Your task to perform on an android device: change text size in settings app Image 0: 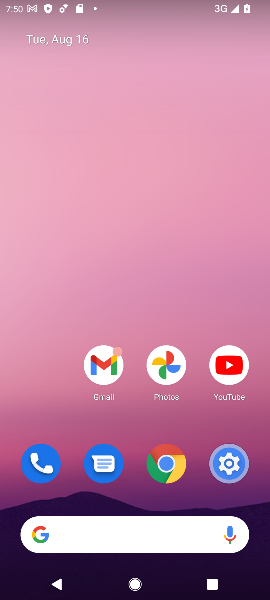
Step 0: drag from (132, 464) to (155, 0)
Your task to perform on an android device: change text size in settings app Image 1: 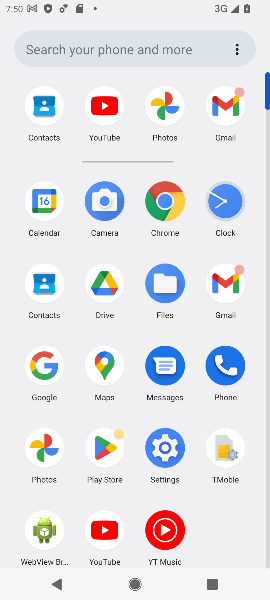
Step 1: click (168, 461)
Your task to perform on an android device: change text size in settings app Image 2: 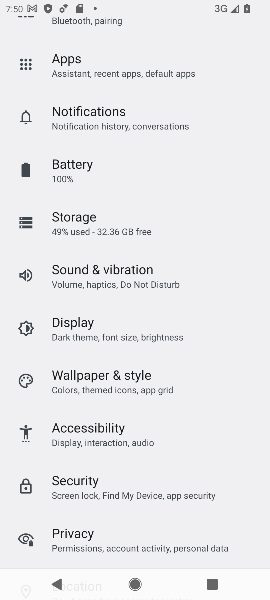
Step 2: click (71, 334)
Your task to perform on an android device: change text size in settings app Image 3: 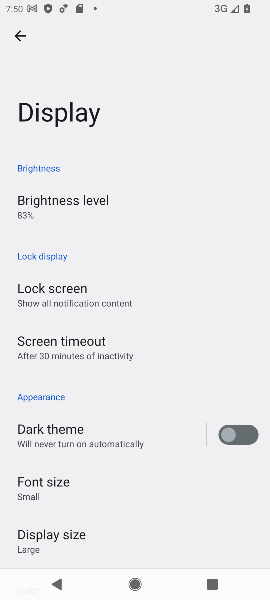
Step 3: drag from (101, 498) to (93, 309)
Your task to perform on an android device: change text size in settings app Image 4: 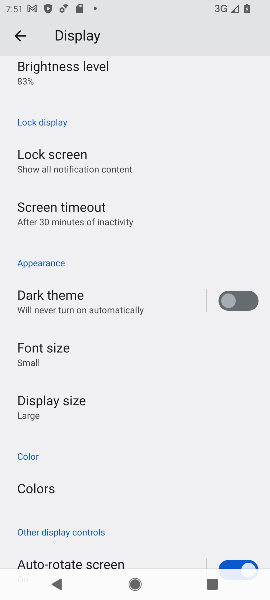
Step 4: click (40, 353)
Your task to perform on an android device: change text size in settings app Image 5: 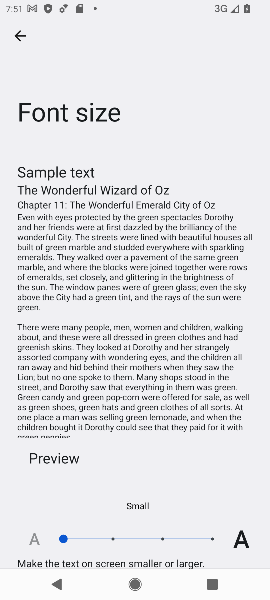
Step 5: click (110, 536)
Your task to perform on an android device: change text size in settings app Image 6: 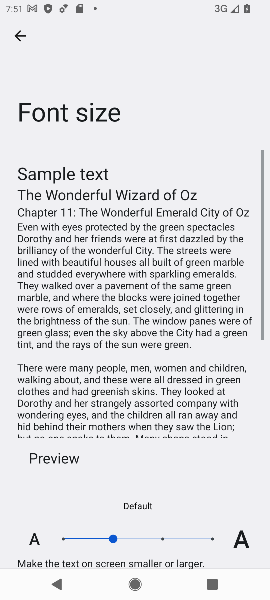
Step 6: click (107, 538)
Your task to perform on an android device: change text size in settings app Image 7: 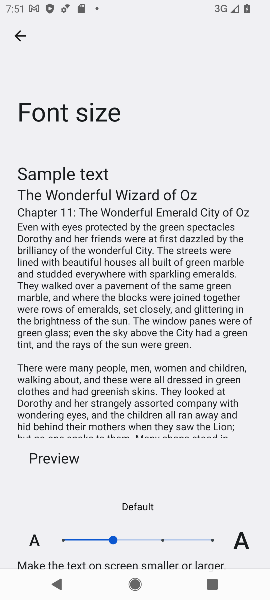
Step 7: task complete